Your task to perform on an android device: turn on location history Image 0: 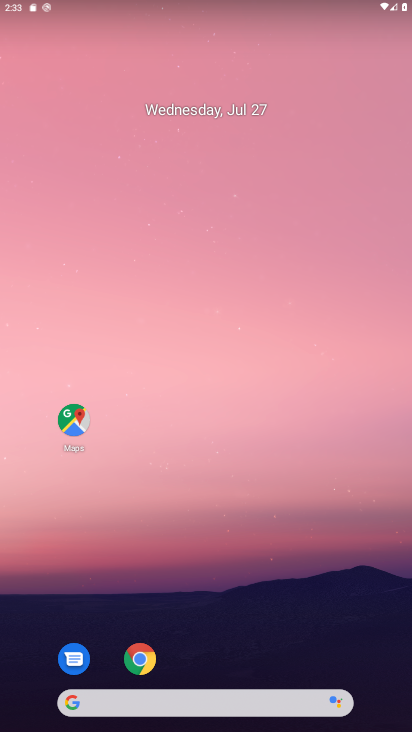
Step 0: drag from (215, 637) to (269, 88)
Your task to perform on an android device: turn on location history Image 1: 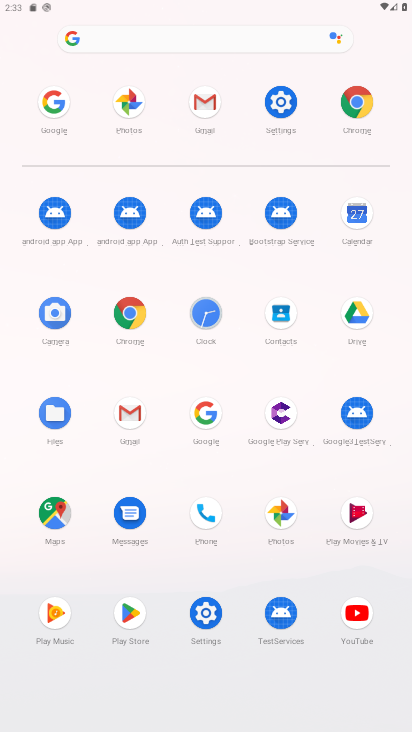
Step 1: click (293, 111)
Your task to perform on an android device: turn on location history Image 2: 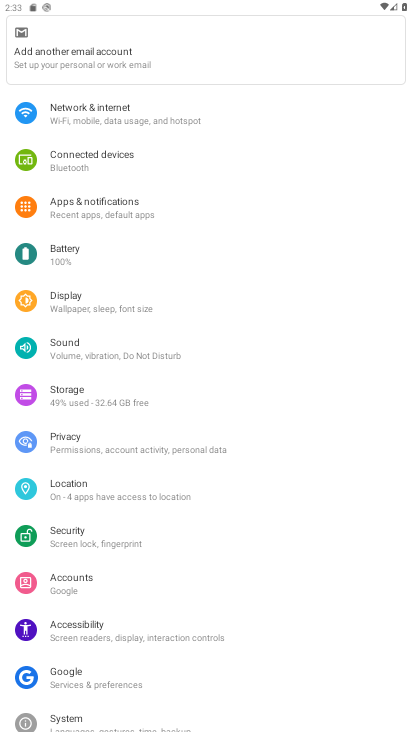
Step 2: click (92, 489)
Your task to perform on an android device: turn on location history Image 3: 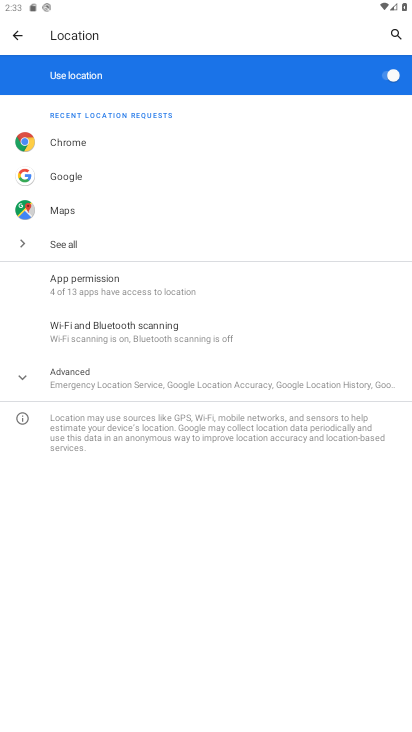
Step 3: click (87, 374)
Your task to perform on an android device: turn on location history Image 4: 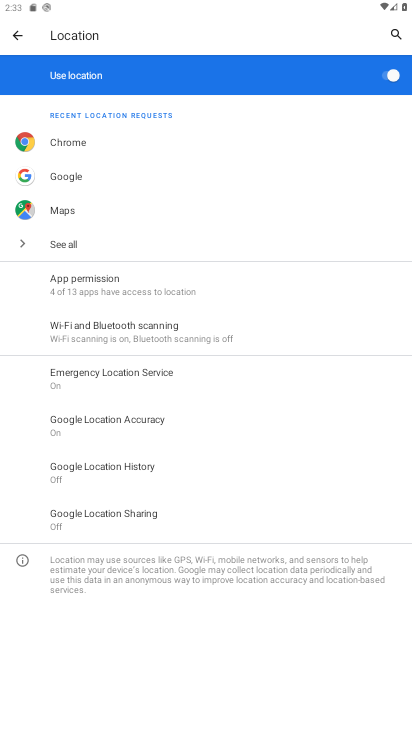
Step 4: click (110, 466)
Your task to perform on an android device: turn on location history Image 5: 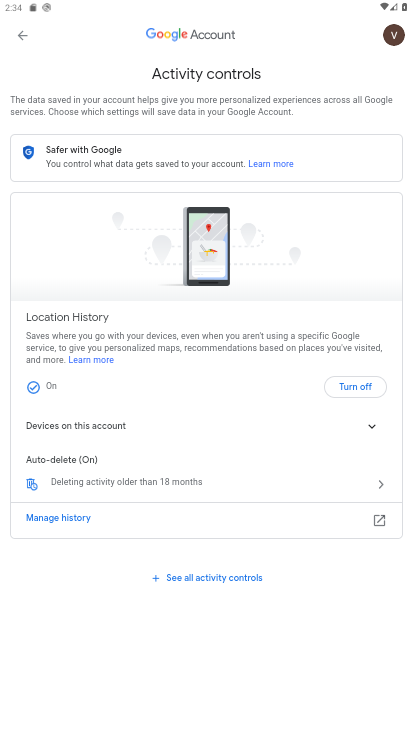
Step 5: task complete